Your task to perform on an android device: Open the map Image 0: 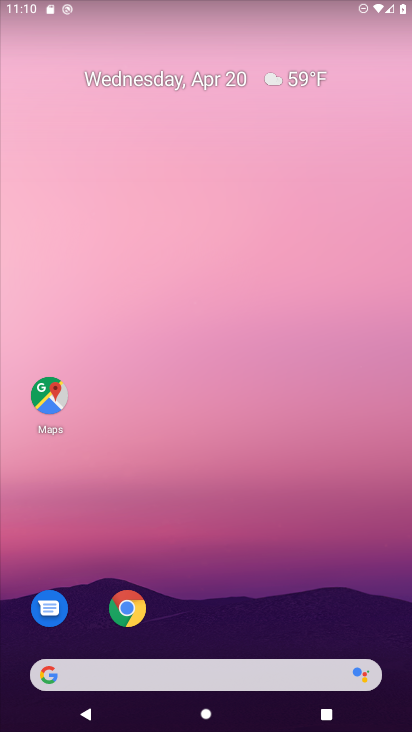
Step 0: click (346, 109)
Your task to perform on an android device: Open the map Image 1: 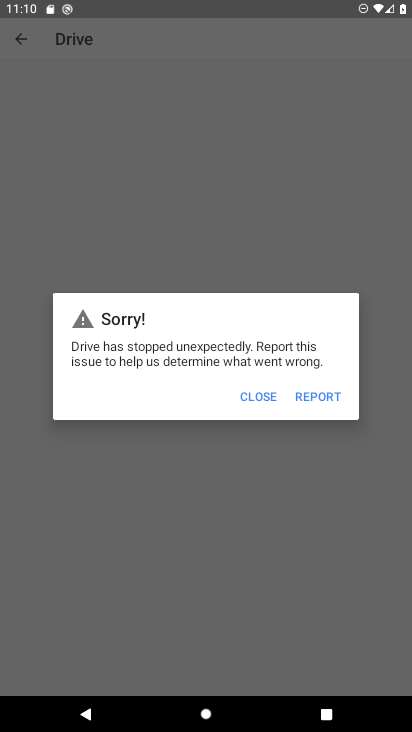
Step 1: drag from (287, 588) to (259, 206)
Your task to perform on an android device: Open the map Image 2: 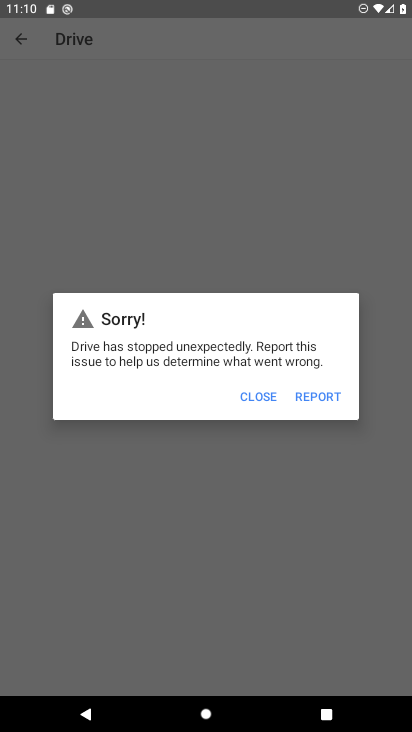
Step 2: press home button
Your task to perform on an android device: Open the map Image 3: 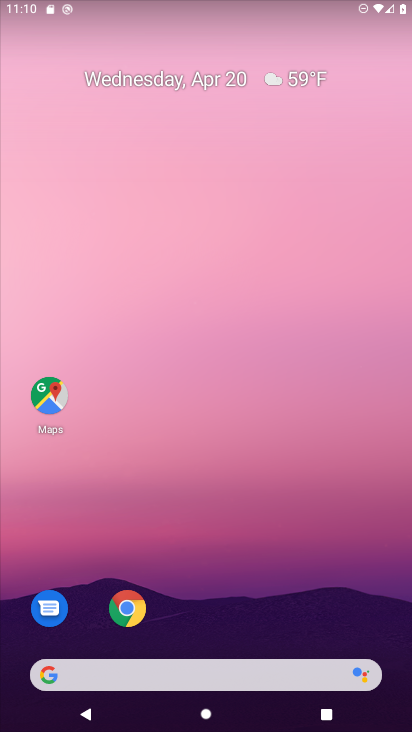
Step 3: click (57, 386)
Your task to perform on an android device: Open the map Image 4: 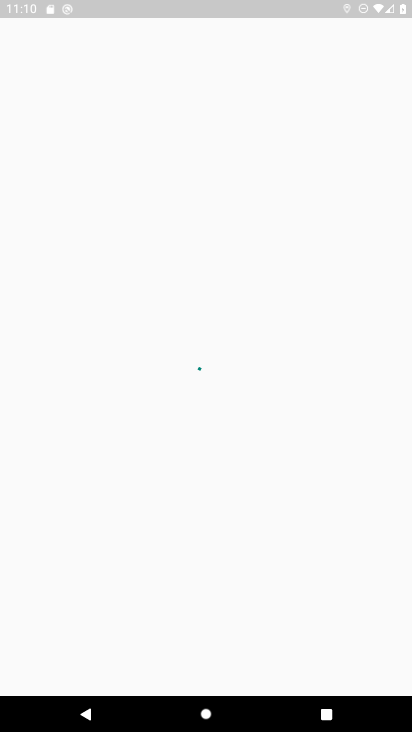
Step 4: task complete